Your task to perform on an android device: toggle sleep mode Image 0: 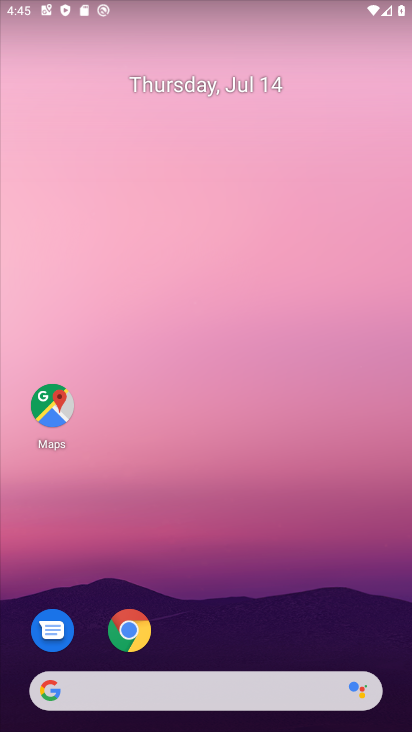
Step 0: drag from (290, 565) to (255, 7)
Your task to perform on an android device: toggle sleep mode Image 1: 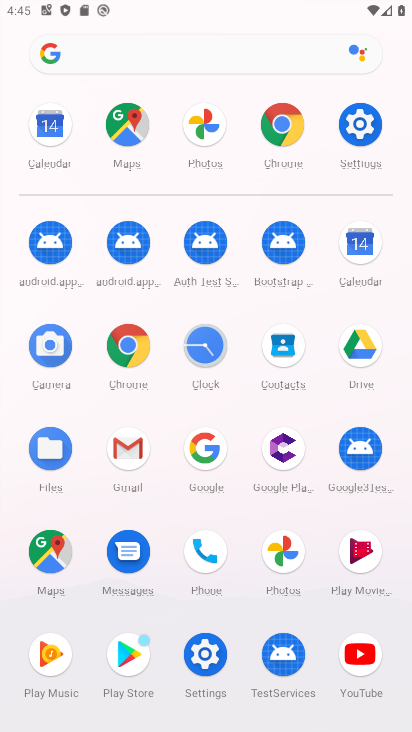
Step 1: click (376, 120)
Your task to perform on an android device: toggle sleep mode Image 2: 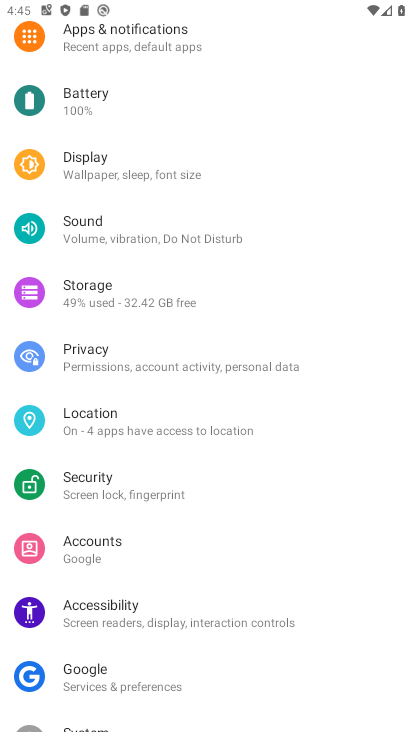
Step 2: click (149, 173)
Your task to perform on an android device: toggle sleep mode Image 3: 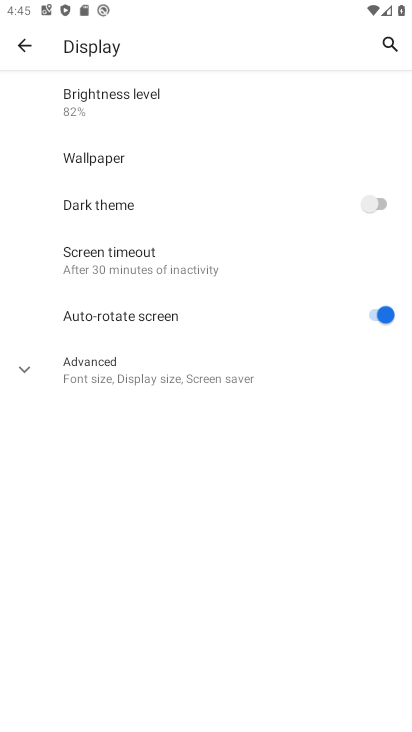
Step 3: task complete